Your task to perform on an android device: toggle improve location accuracy Image 0: 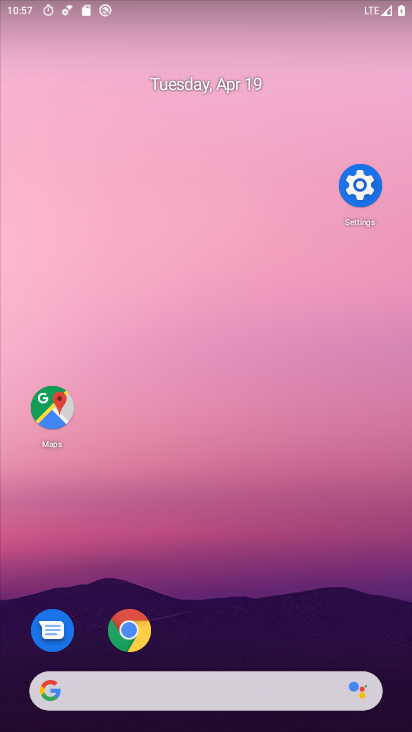
Step 0: drag from (263, 583) to (298, 294)
Your task to perform on an android device: toggle improve location accuracy Image 1: 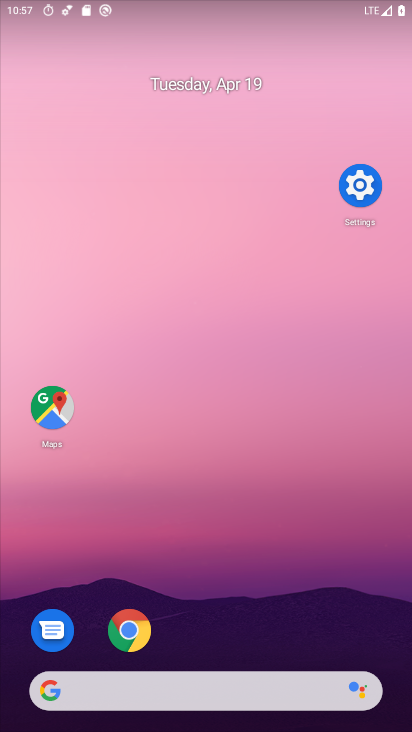
Step 1: drag from (286, 627) to (294, 223)
Your task to perform on an android device: toggle improve location accuracy Image 2: 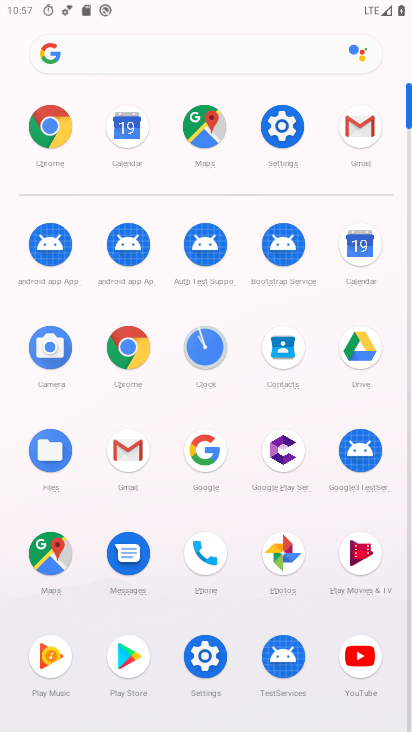
Step 2: click (299, 122)
Your task to perform on an android device: toggle improve location accuracy Image 3: 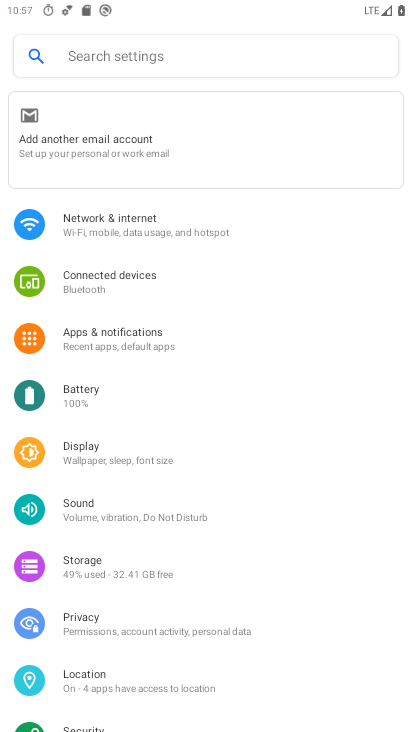
Step 3: click (144, 679)
Your task to perform on an android device: toggle improve location accuracy Image 4: 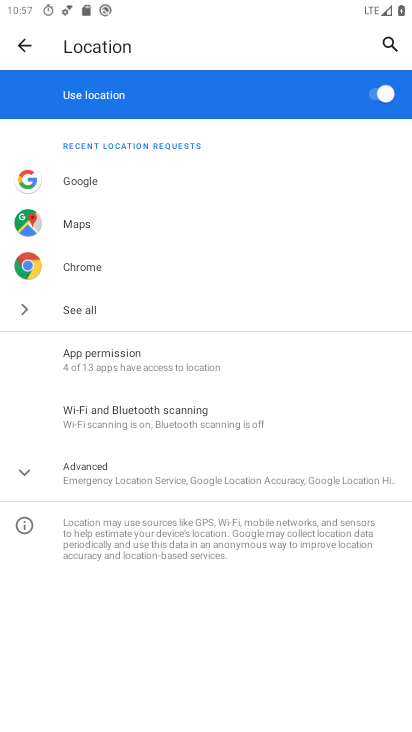
Step 4: click (148, 487)
Your task to perform on an android device: toggle improve location accuracy Image 5: 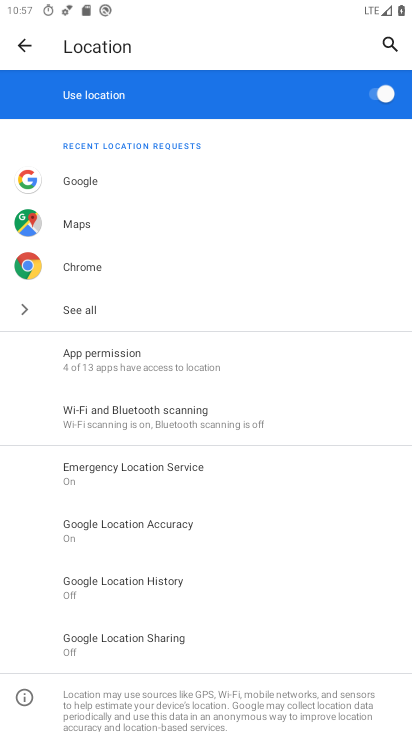
Step 5: click (161, 534)
Your task to perform on an android device: toggle improve location accuracy Image 6: 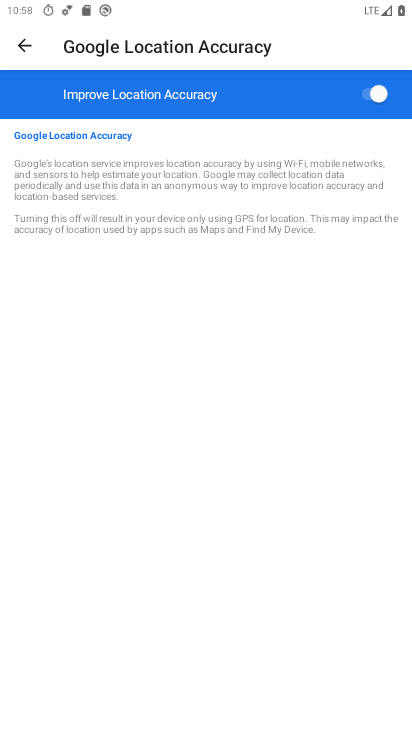
Step 6: click (371, 89)
Your task to perform on an android device: toggle improve location accuracy Image 7: 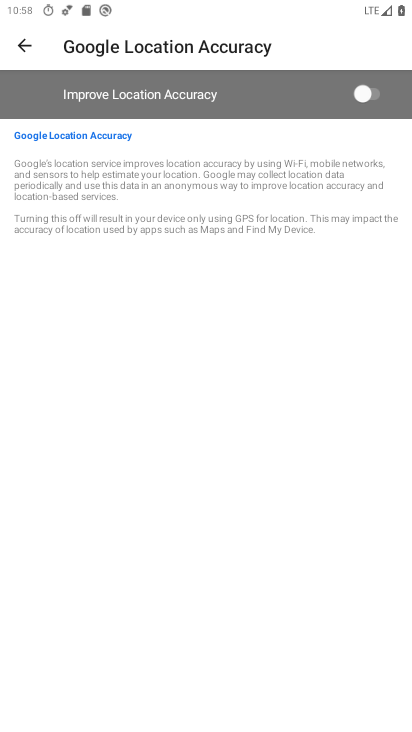
Step 7: task complete